Your task to perform on an android device: Open Google Chrome and open the bookmarks view Image 0: 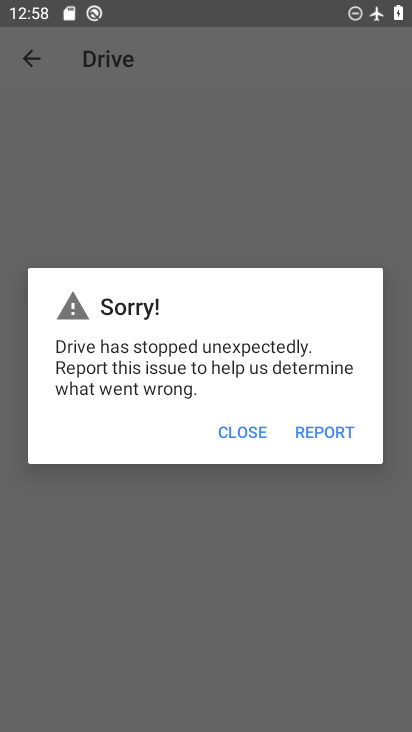
Step 0: press home button
Your task to perform on an android device: Open Google Chrome and open the bookmarks view Image 1: 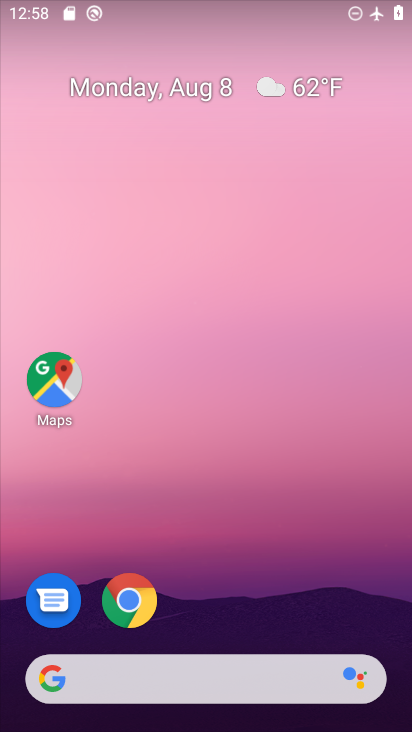
Step 1: click (146, 606)
Your task to perform on an android device: Open Google Chrome and open the bookmarks view Image 2: 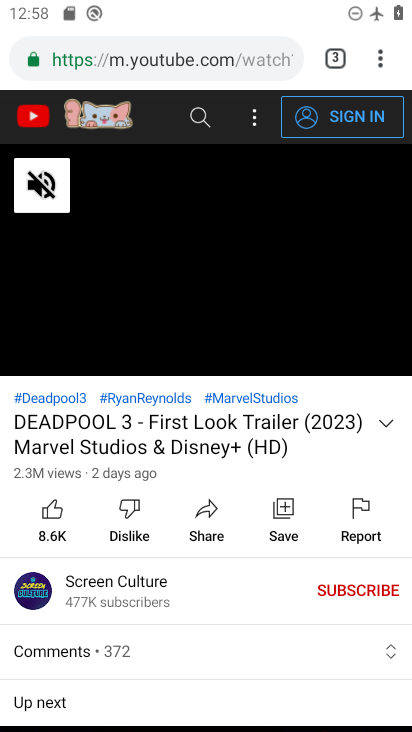
Step 2: click (383, 66)
Your task to perform on an android device: Open Google Chrome and open the bookmarks view Image 3: 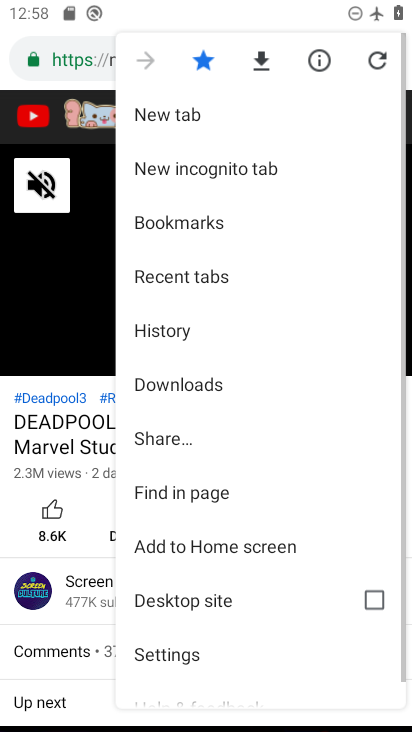
Step 3: click (215, 221)
Your task to perform on an android device: Open Google Chrome and open the bookmarks view Image 4: 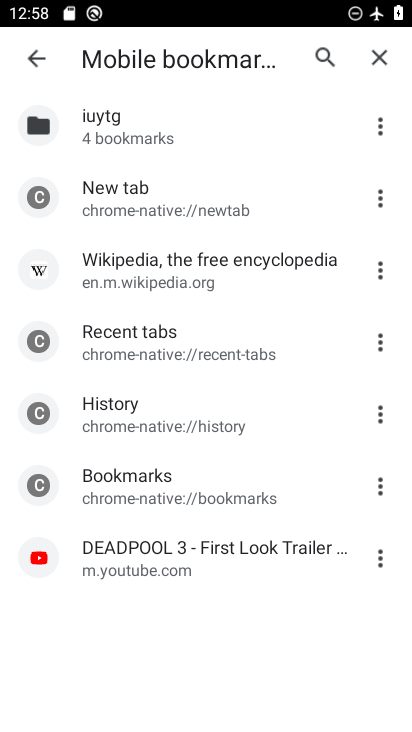
Step 4: task complete